Your task to perform on an android device: turn on translation in the chrome app Image 0: 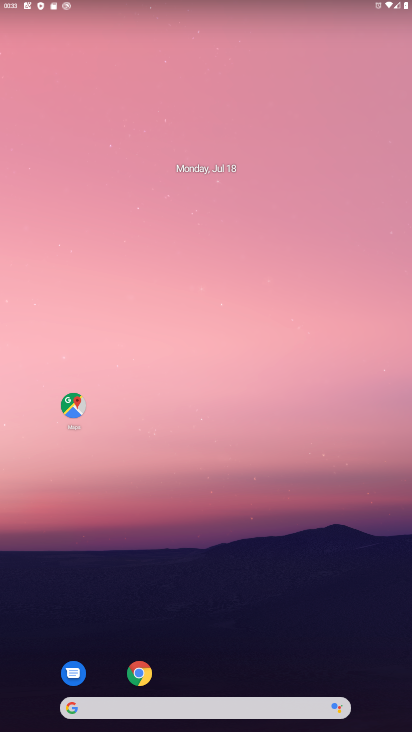
Step 0: click (150, 675)
Your task to perform on an android device: turn on translation in the chrome app Image 1: 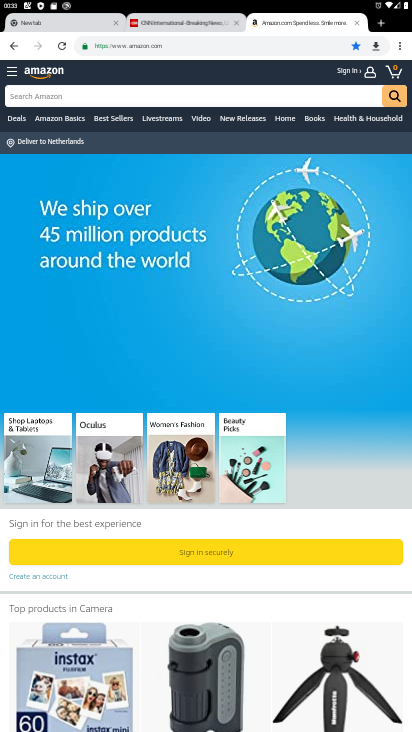
Step 1: click (387, 23)
Your task to perform on an android device: turn on translation in the chrome app Image 2: 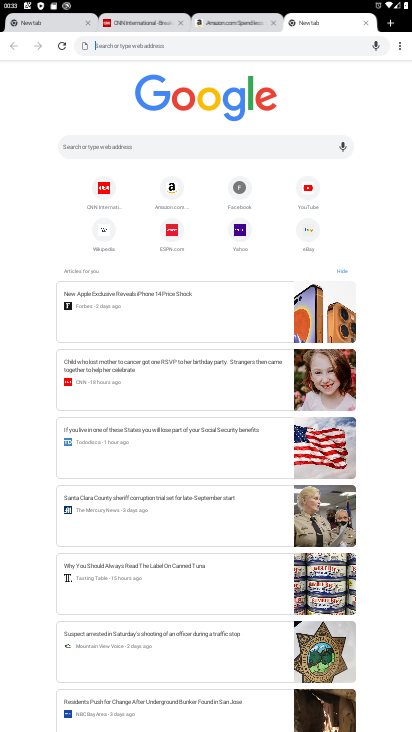
Step 2: click (400, 44)
Your task to perform on an android device: turn on translation in the chrome app Image 3: 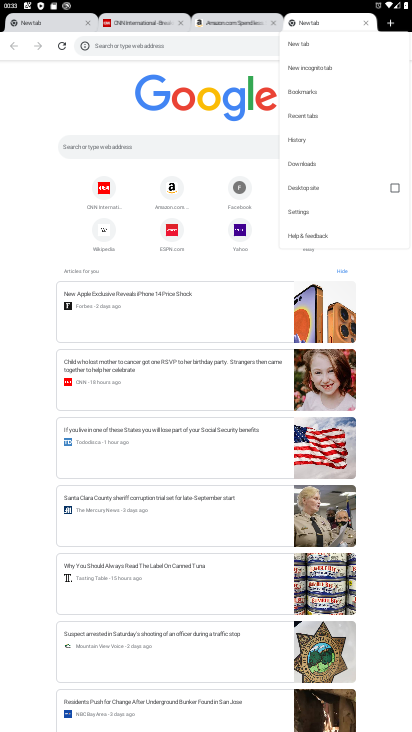
Step 3: click (325, 215)
Your task to perform on an android device: turn on translation in the chrome app Image 4: 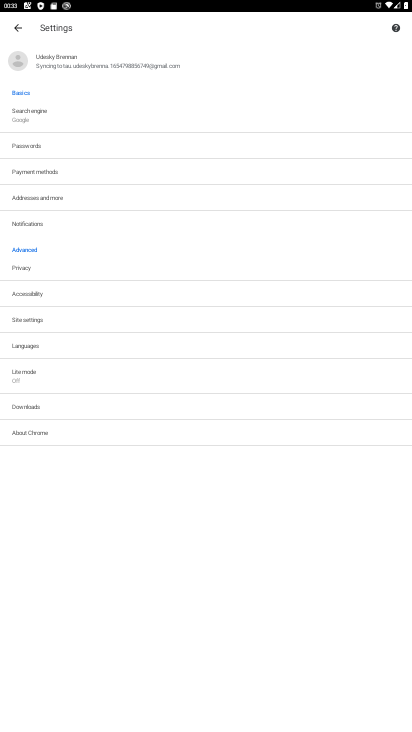
Step 4: task complete